Your task to perform on an android device: Go to Google Image 0: 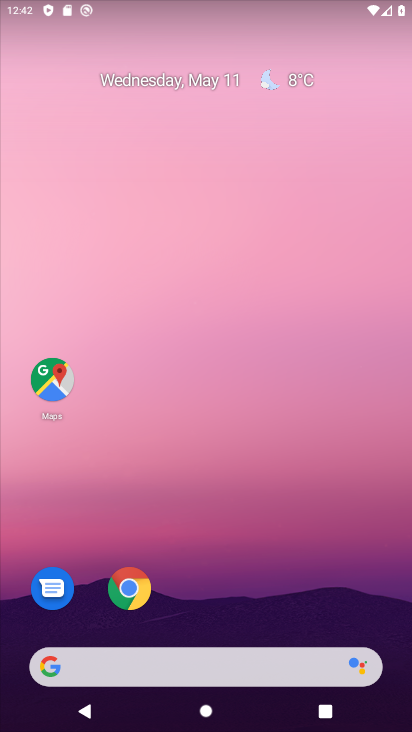
Step 0: drag from (244, 596) to (273, 13)
Your task to perform on an android device: Go to Google Image 1: 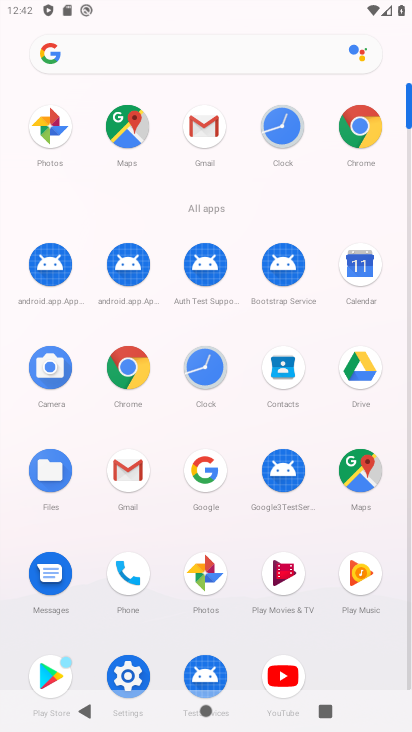
Step 1: click (211, 463)
Your task to perform on an android device: Go to Google Image 2: 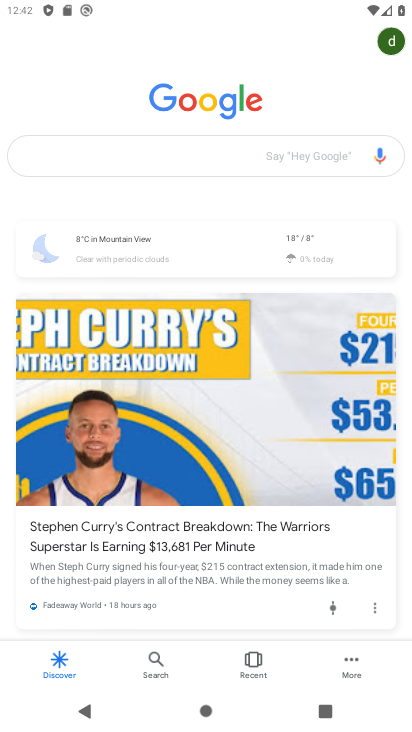
Step 2: task complete